Your task to perform on an android device: See recent photos Image 0: 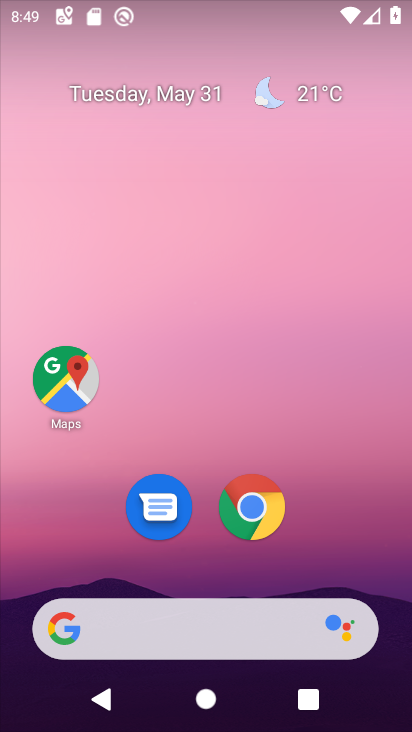
Step 0: drag from (282, 699) to (359, 1)
Your task to perform on an android device: See recent photos Image 1: 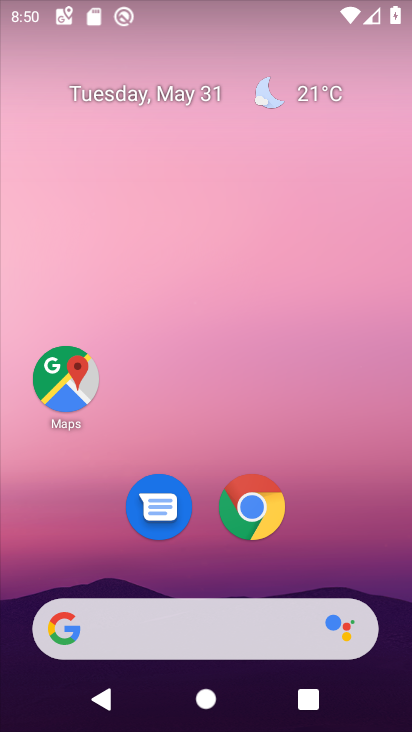
Step 1: press back button
Your task to perform on an android device: See recent photos Image 2: 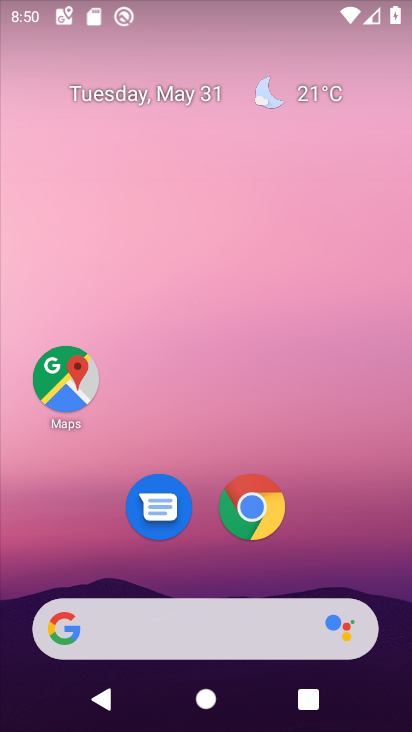
Step 2: drag from (258, 458) to (177, 23)
Your task to perform on an android device: See recent photos Image 3: 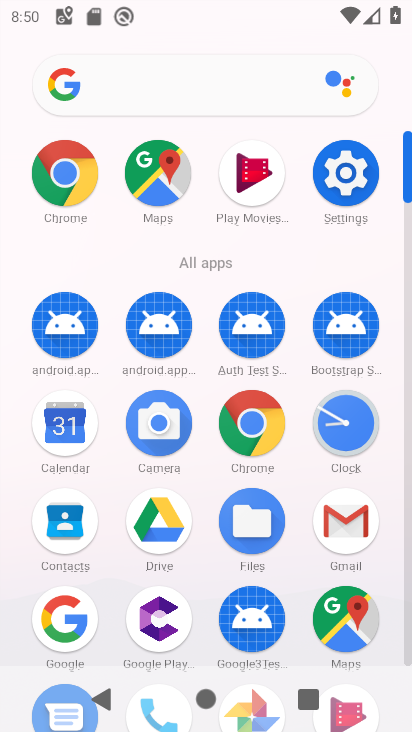
Step 3: drag from (282, 505) to (230, 207)
Your task to perform on an android device: See recent photos Image 4: 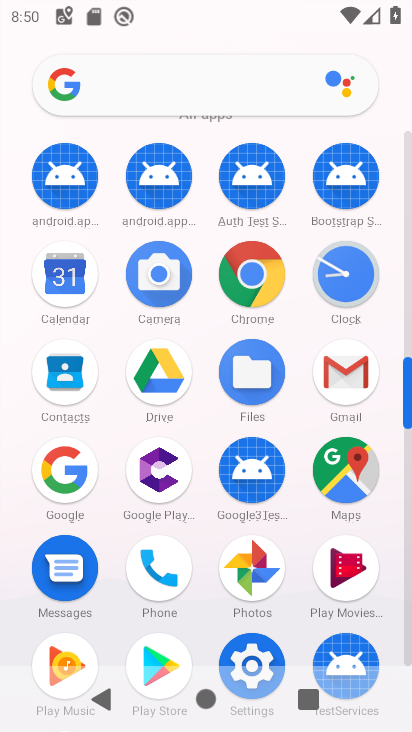
Step 4: drag from (307, 419) to (230, 54)
Your task to perform on an android device: See recent photos Image 5: 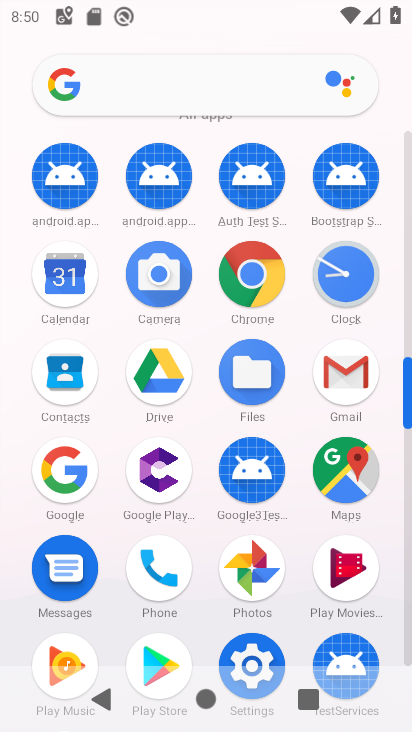
Step 5: click (253, 649)
Your task to perform on an android device: See recent photos Image 6: 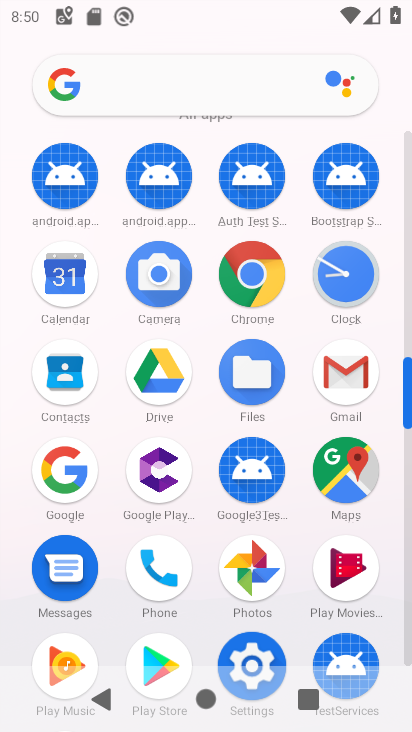
Step 6: click (253, 649)
Your task to perform on an android device: See recent photos Image 7: 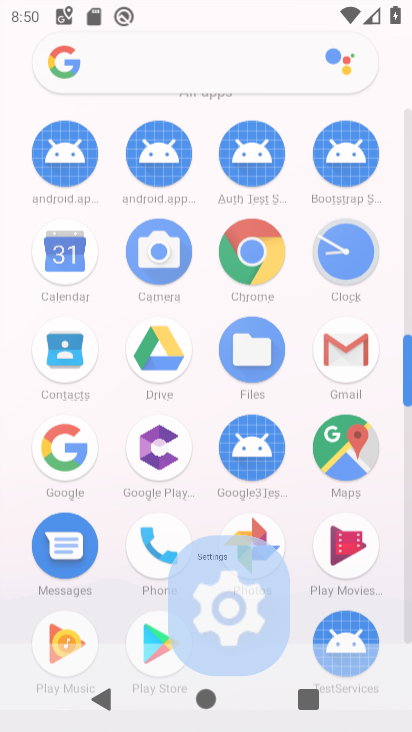
Step 7: click (251, 650)
Your task to perform on an android device: See recent photos Image 8: 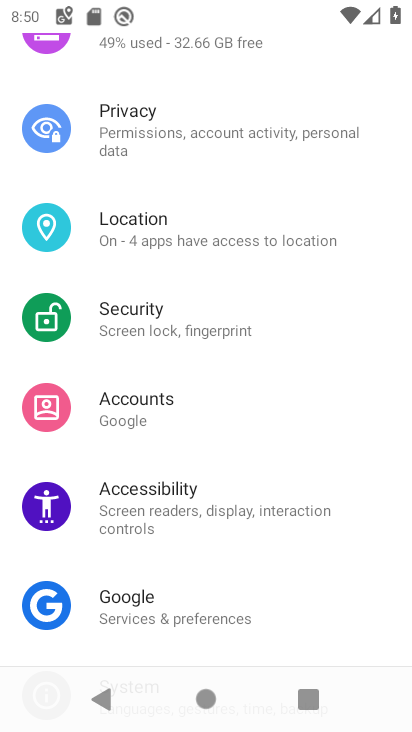
Step 8: press back button
Your task to perform on an android device: See recent photos Image 9: 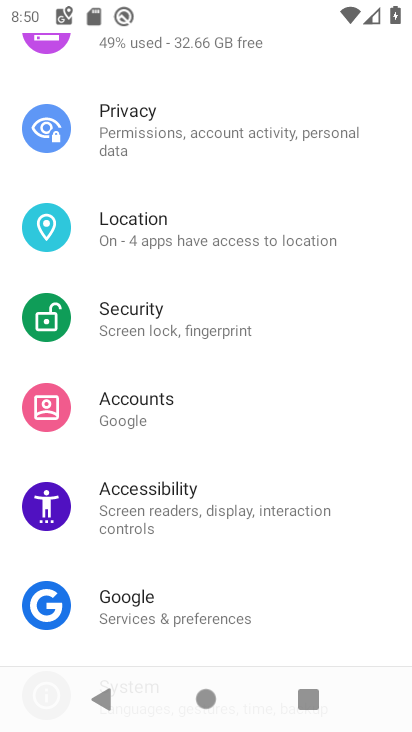
Step 9: press back button
Your task to perform on an android device: See recent photos Image 10: 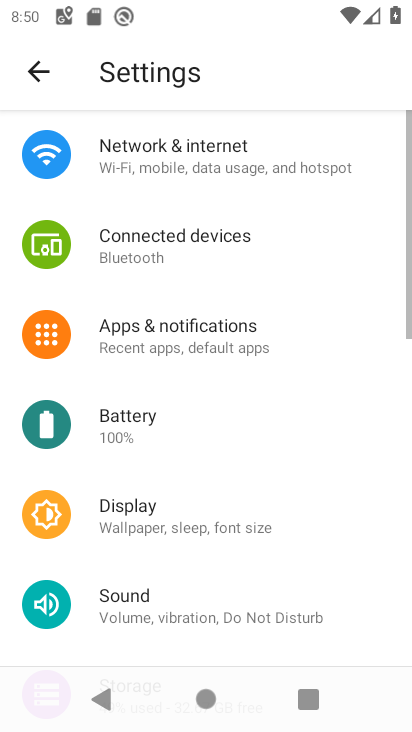
Step 10: press back button
Your task to perform on an android device: See recent photos Image 11: 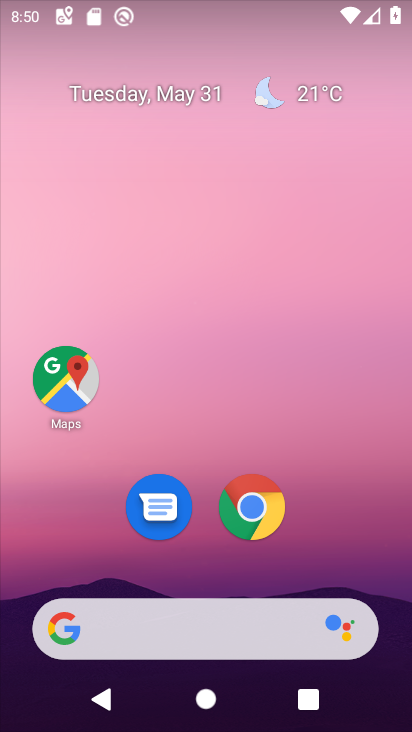
Step 11: drag from (264, 681) to (146, 73)
Your task to perform on an android device: See recent photos Image 12: 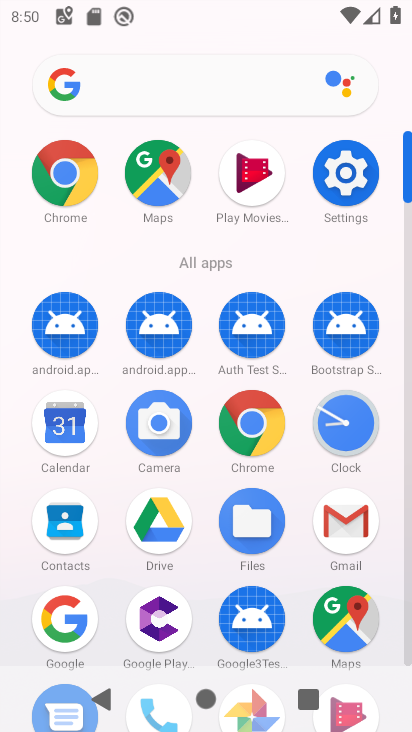
Step 12: drag from (297, 561) to (279, 160)
Your task to perform on an android device: See recent photos Image 13: 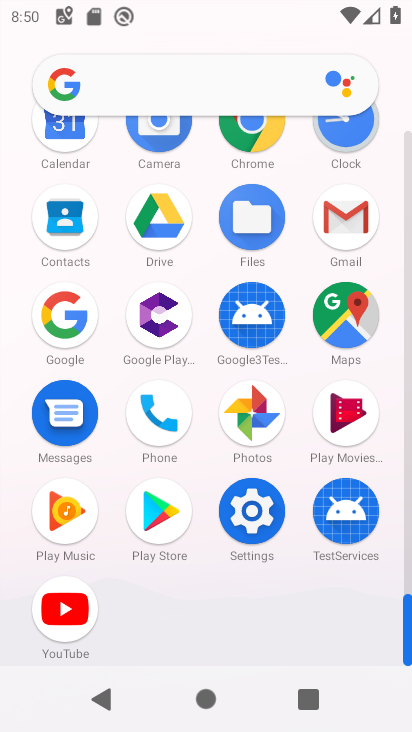
Step 13: drag from (277, 422) to (269, 80)
Your task to perform on an android device: See recent photos Image 14: 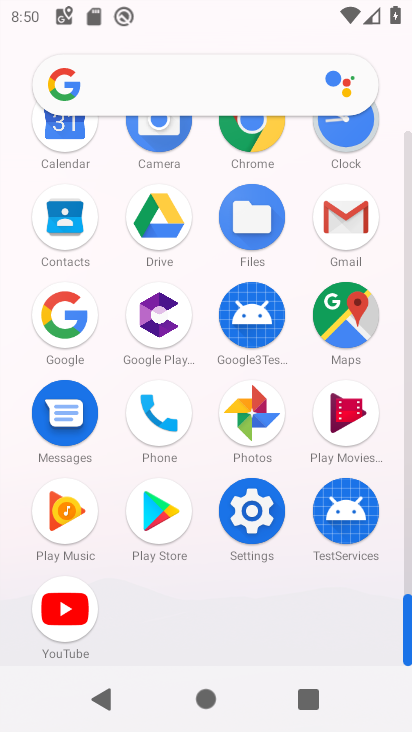
Step 14: click (258, 422)
Your task to perform on an android device: See recent photos Image 15: 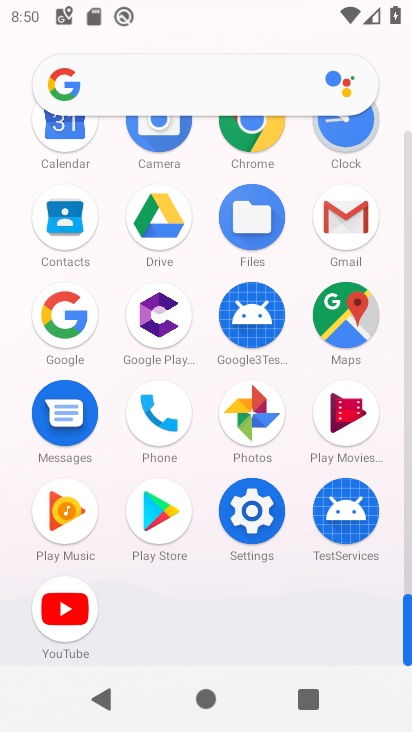
Step 15: click (260, 422)
Your task to perform on an android device: See recent photos Image 16: 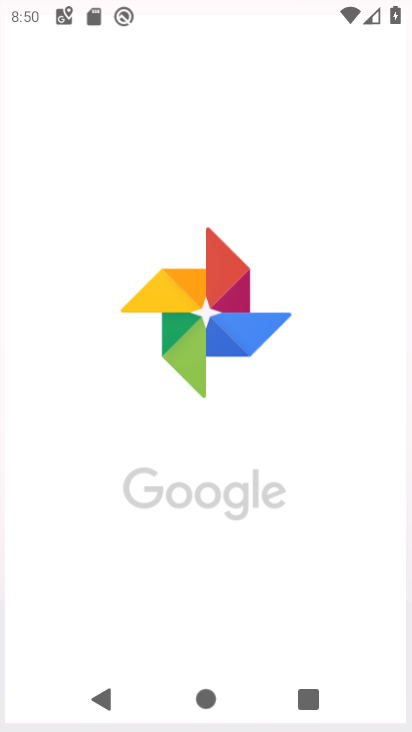
Step 16: click (256, 421)
Your task to perform on an android device: See recent photos Image 17: 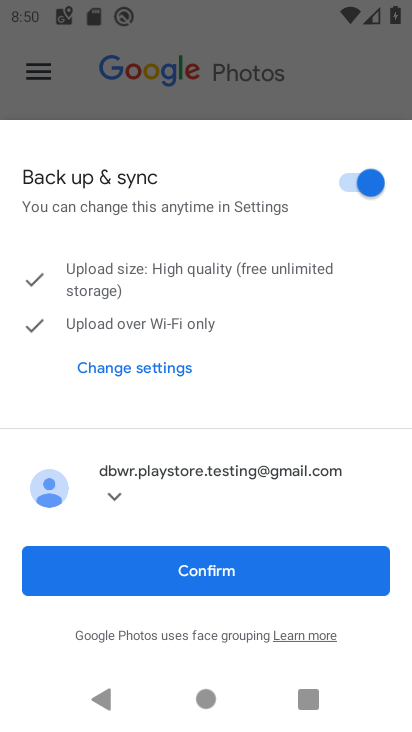
Step 17: click (214, 569)
Your task to perform on an android device: See recent photos Image 18: 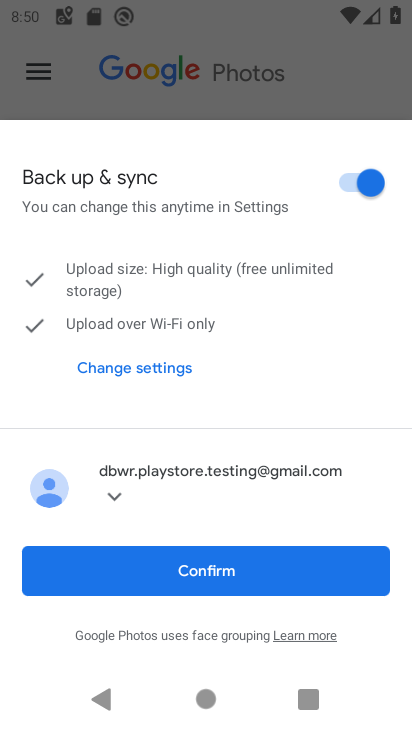
Step 18: click (214, 569)
Your task to perform on an android device: See recent photos Image 19: 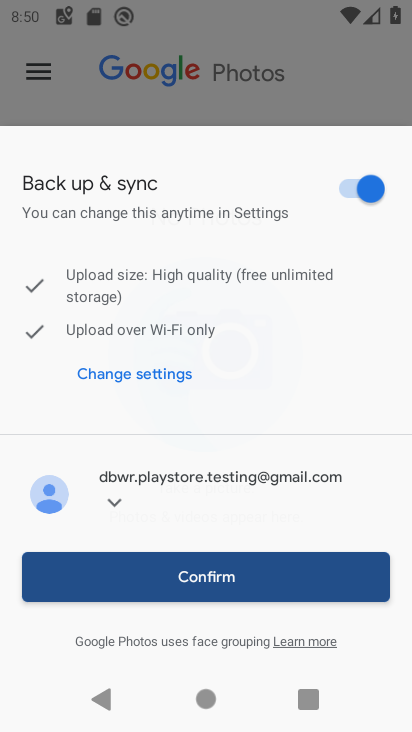
Step 19: click (205, 563)
Your task to perform on an android device: See recent photos Image 20: 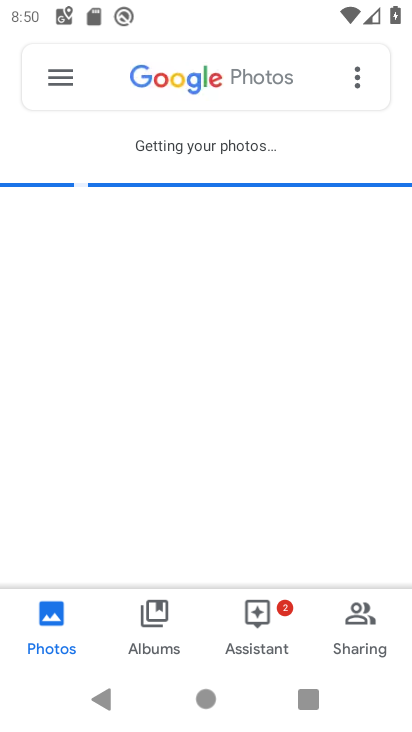
Step 20: task complete